Your task to perform on an android device: turn off airplane mode Image 0: 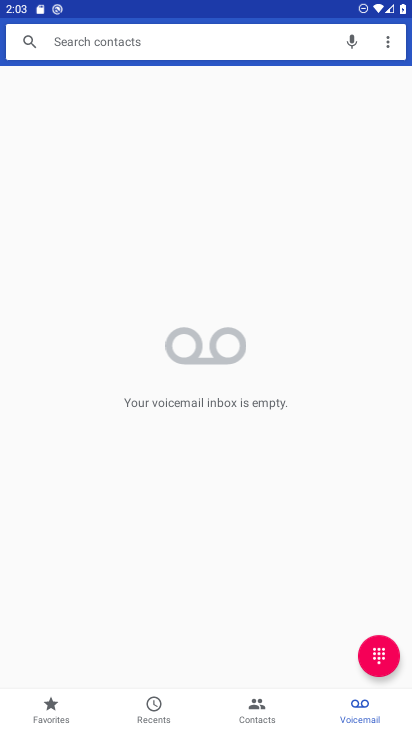
Step 0: press home button
Your task to perform on an android device: turn off airplane mode Image 1: 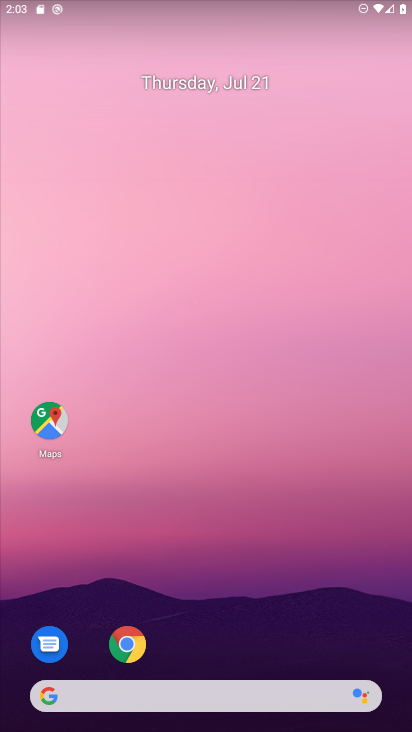
Step 1: drag from (189, 596) to (214, 27)
Your task to perform on an android device: turn off airplane mode Image 2: 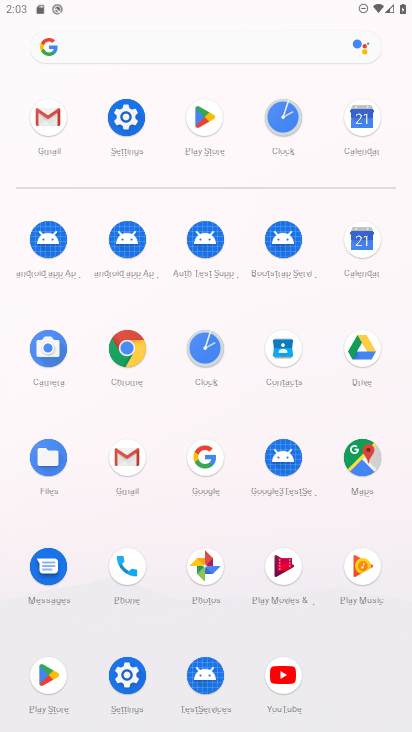
Step 2: click (121, 125)
Your task to perform on an android device: turn off airplane mode Image 3: 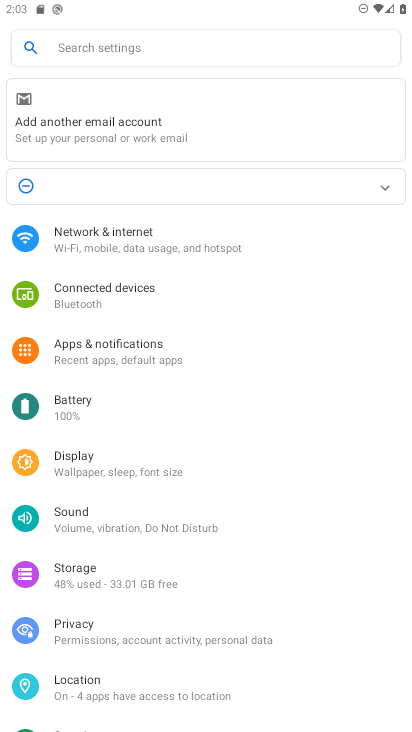
Step 3: click (121, 231)
Your task to perform on an android device: turn off airplane mode Image 4: 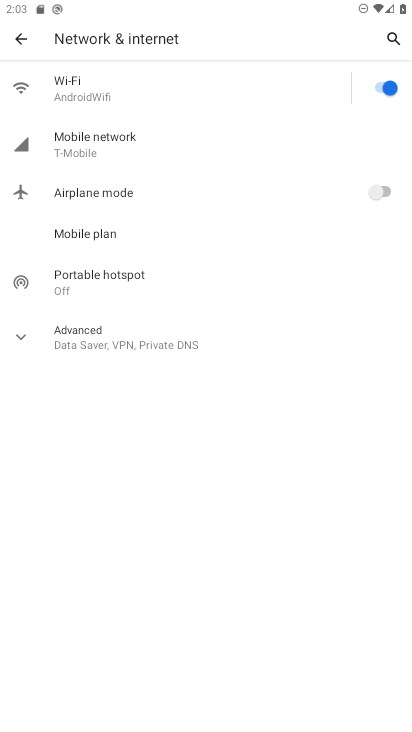
Step 4: task complete